Your task to perform on an android device: turn on showing notifications on the lock screen Image 0: 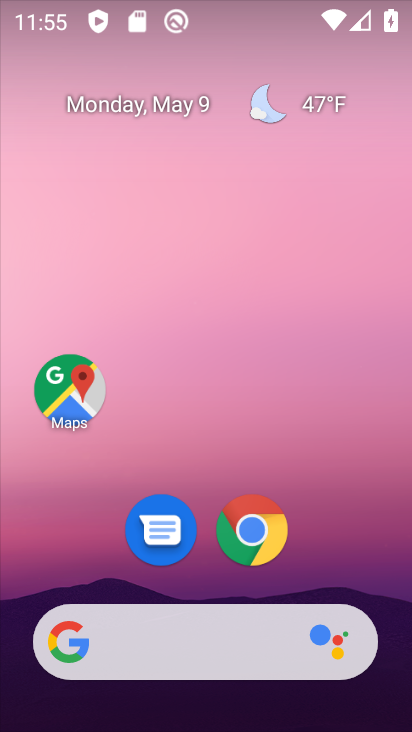
Step 0: press home button
Your task to perform on an android device: turn on showing notifications on the lock screen Image 1: 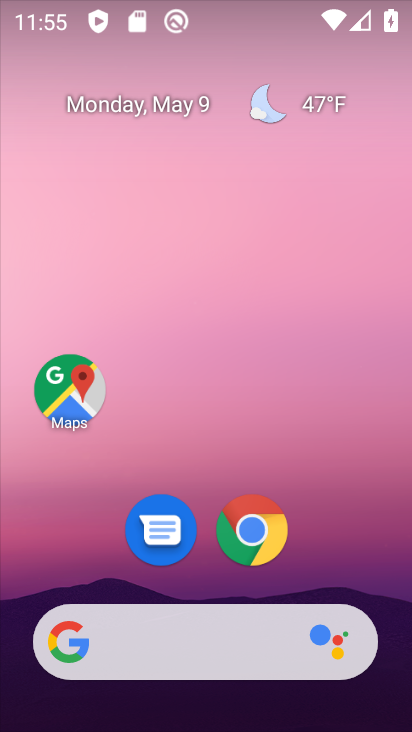
Step 1: drag from (389, 555) to (375, 259)
Your task to perform on an android device: turn on showing notifications on the lock screen Image 2: 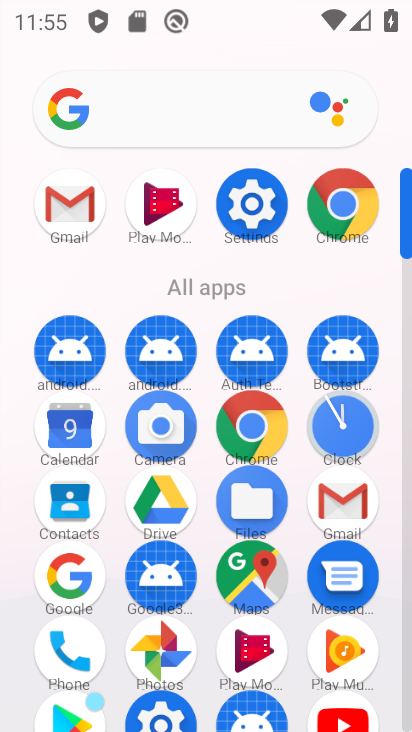
Step 2: click (272, 219)
Your task to perform on an android device: turn on showing notifications on the lock screen Image 3: 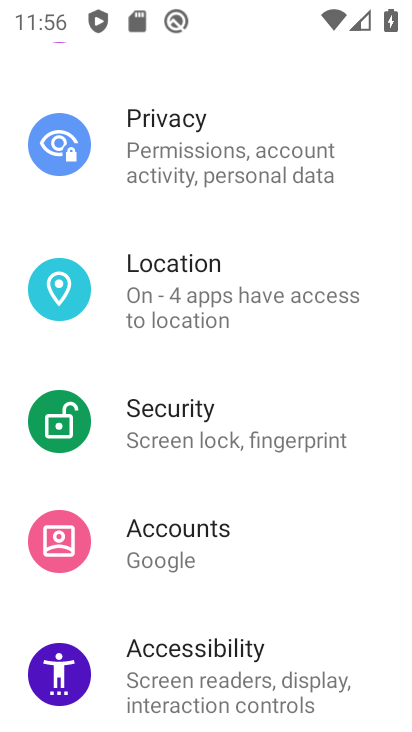
Step 3: drag from (302, 179) to (305, 581)
Your task to perform on an android device: turn on showing notifications on the lock screen Image 4: 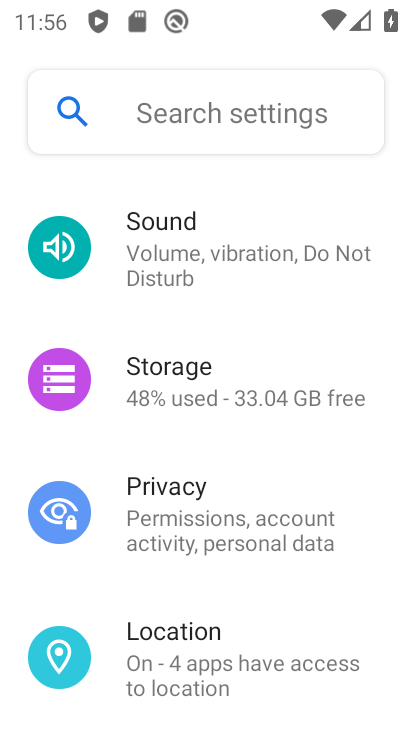
Step 4: drag from (247, 215) to (245, 626)
Your task to perform on an android device: turn on showing notifications on the lock screen Image 5: 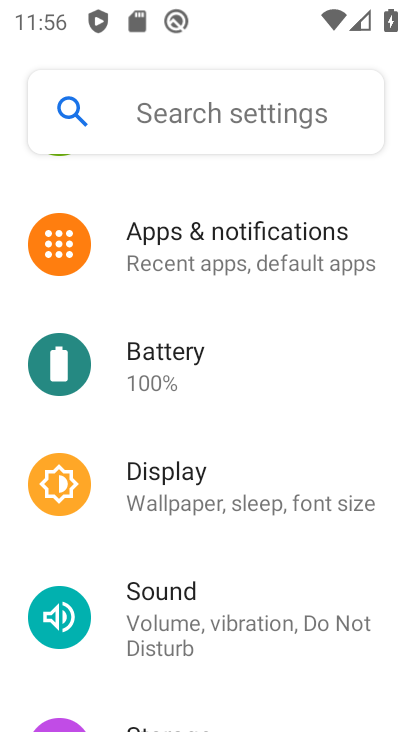
Step 5: click (249, 263)
Your task to perform on an android device: turn on showing notifications on the lock screen Image 6: 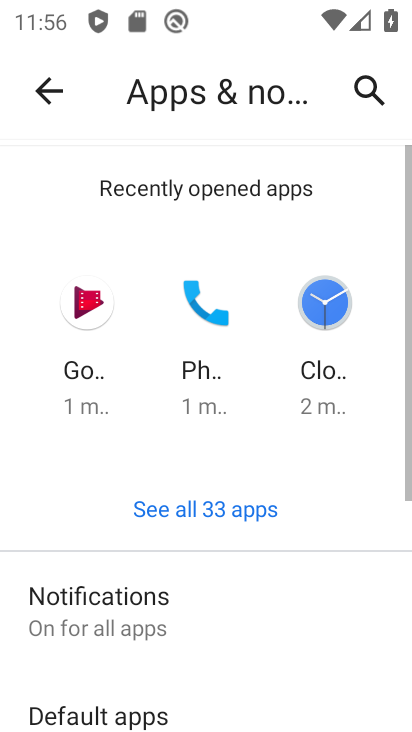
Step 6: click (164, 607)
Your task to perform on an android device: turn on showing notifications on the lock screen Image 7: 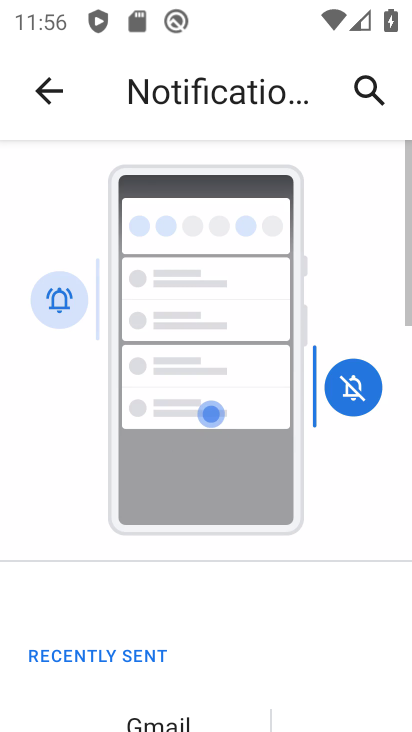
Step 7: drag from (233, 657) to (347, 190)
Your task to perform on an android device: turn on showing notifications on the lock screen Image 8: 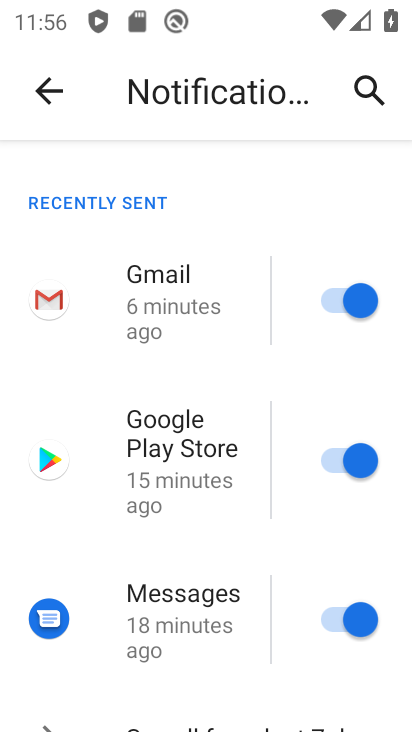
Step 8: drag from (233, 637) to (317, 209)
Your task to perform on an android device: turn on showing notifications on the lock screen Image 9: 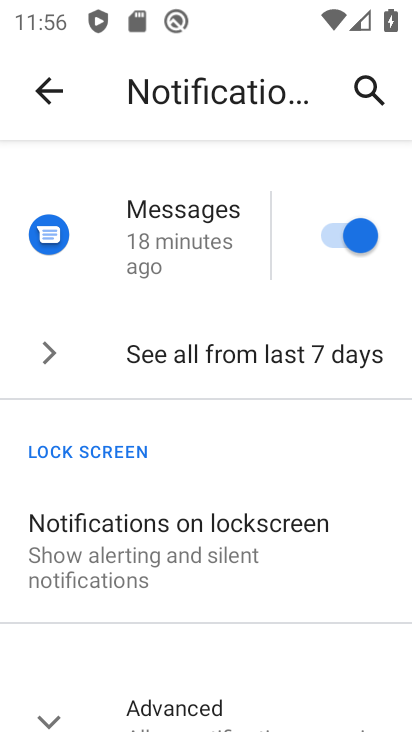
Step 9: click (223, 559)
Your task to perform on an android device: turn on showing notifications on the lock screen Image 10: 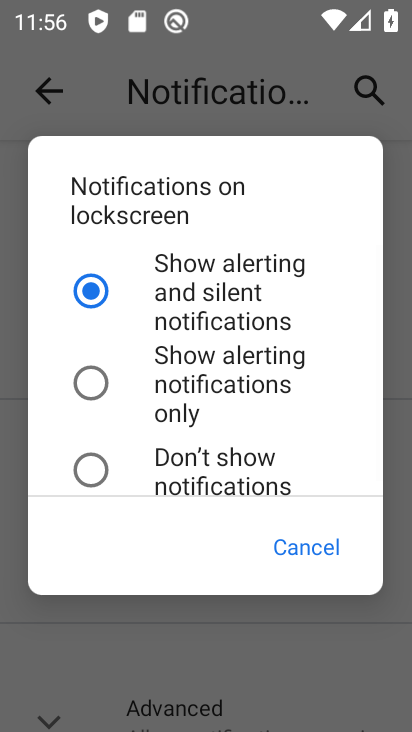
Step 10: task complete